Your task to perform on an android device: uninstall "Gboard" Image 0: 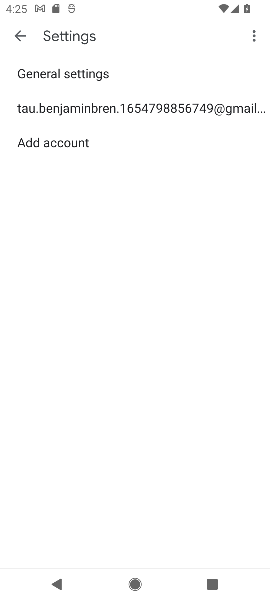
Step 0: press home button
Your task to perform on an android device: uninstall "Gboard" Image 1: 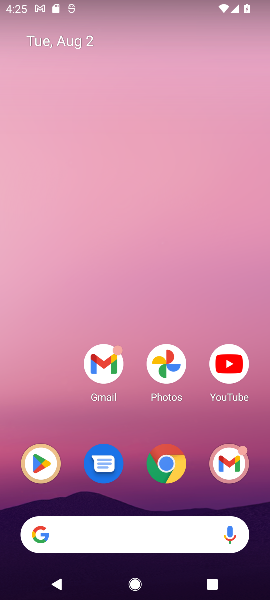
Step 1: click (43, 464)
Your task to perform on an android device: uninstall "Gboard" Image 2: 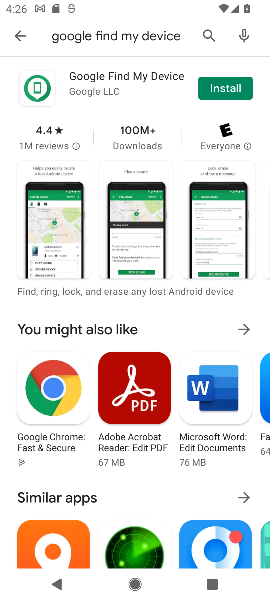
Step 2: click (210, 30)
Your task to perform on an android device: uninstall "Gboard" Image 3: 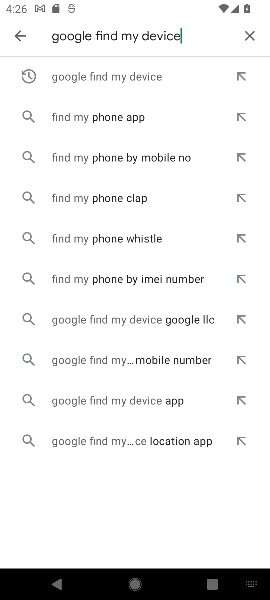
Step 3: click (249, 33)
Your task to perform on an android device: uninstall "Gboard" Image 4: 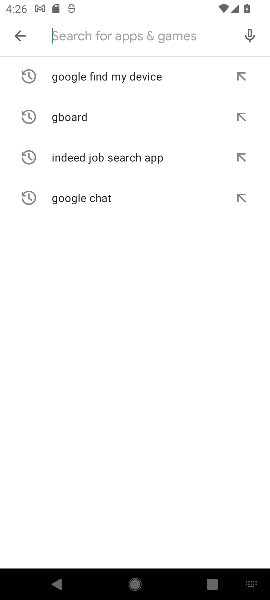
Step 4: click (76, 117)
Your task to perform on an android device: uninstall "Gboard" Image 5: 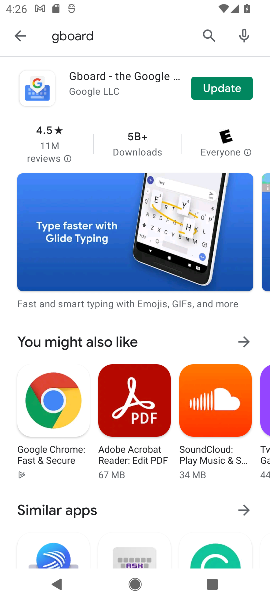
Step 5: task complete